Your task to perform on an android device: open app "Mercado Libre" (install if not already installed) and enter user name: "tolerating@yahoo.com" and password: "Kepler" Image 0: 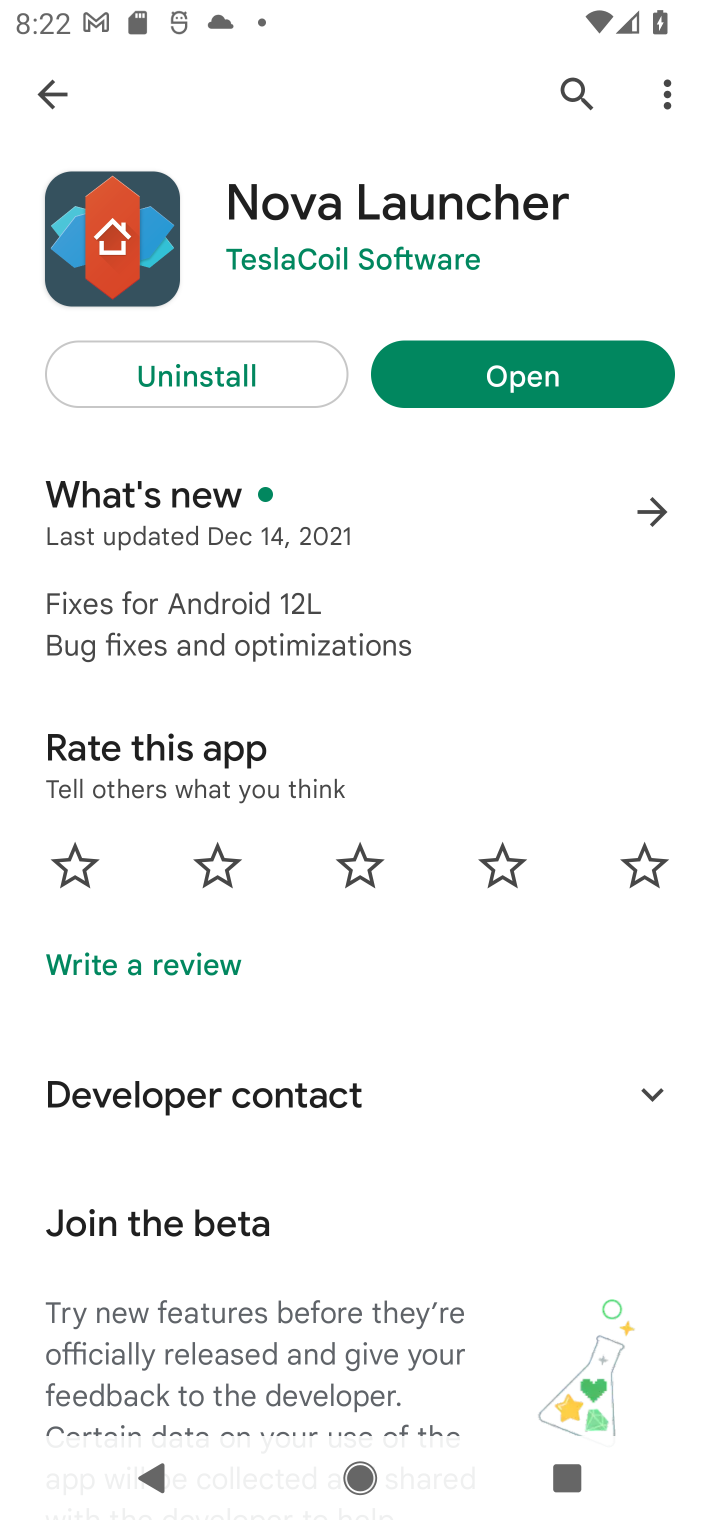
Step 0: press back button
Your task to perform on an android device: open app "Mercado Libre" (install if not already installed) and enter user name: "tolerating@yahoo.com" and password: "Kepler" Image 1: 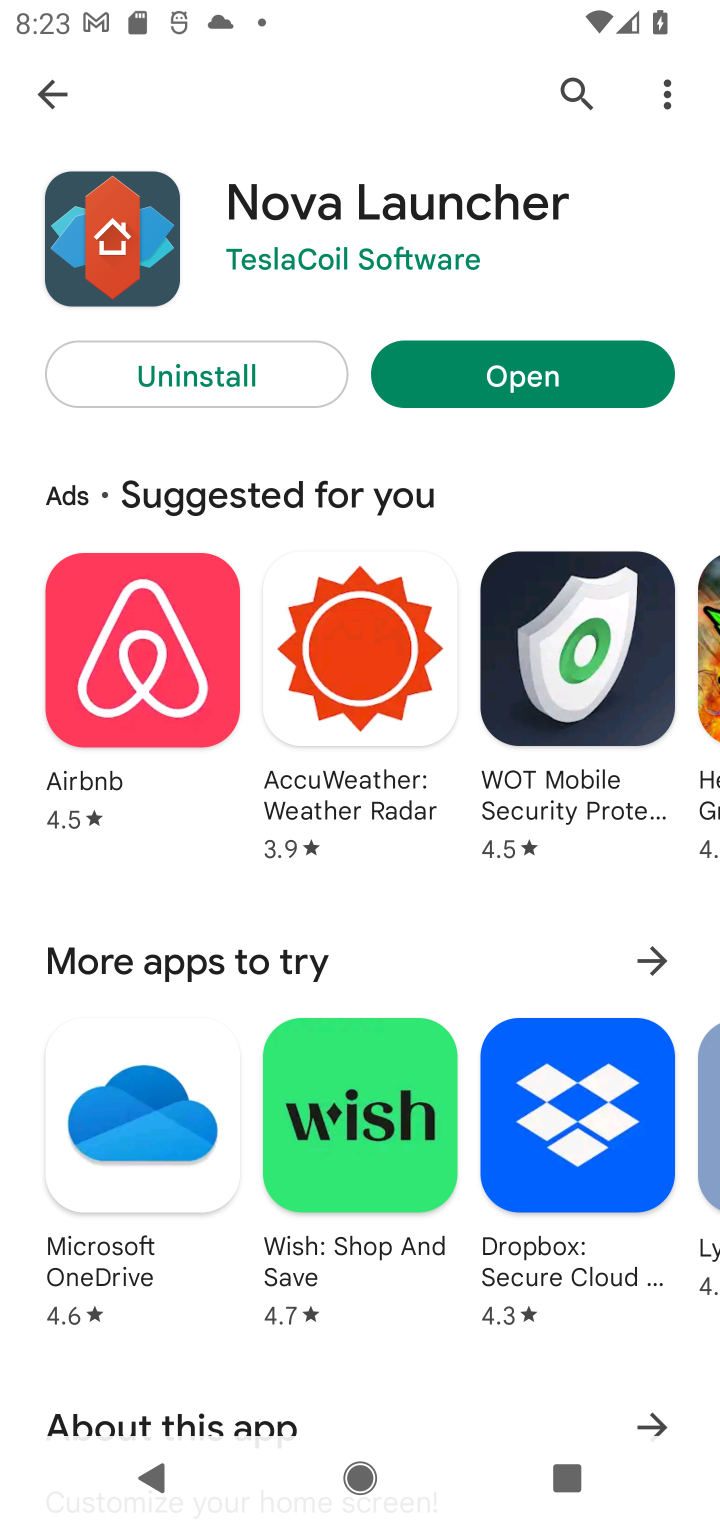
Step 1: click (574, 106)
Your task to perform on an android device: open app "Mercado Libre" (install if not already installed) and enter user name: "tolerating@yahoo.com" and password: "Kepler" Image 2: 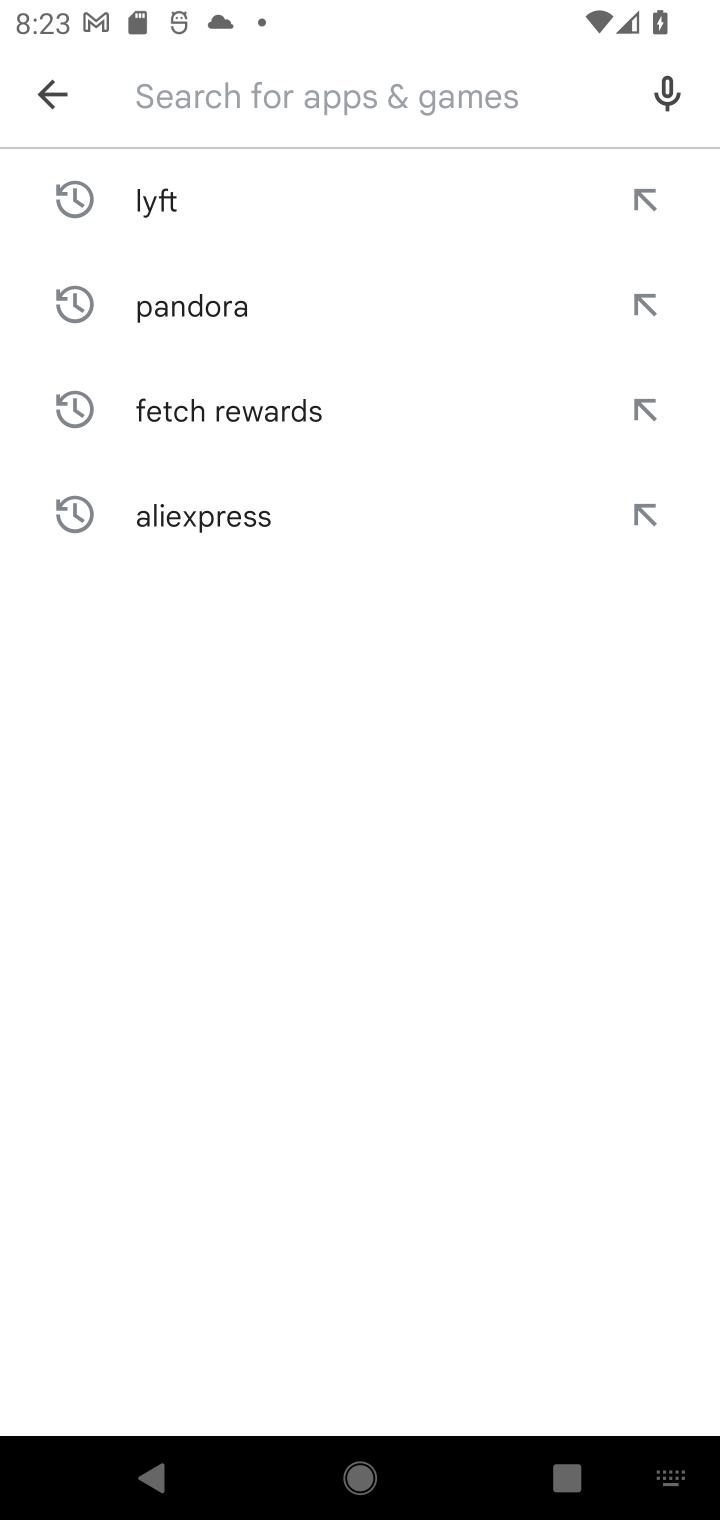
Step 2: type "mercado libre"
Your task to perform on an android device: open app "Mercado Libre" (install if not already installed) and enter user name: "tolerating@yahoo.com" and password: "Kepler" Image 3: 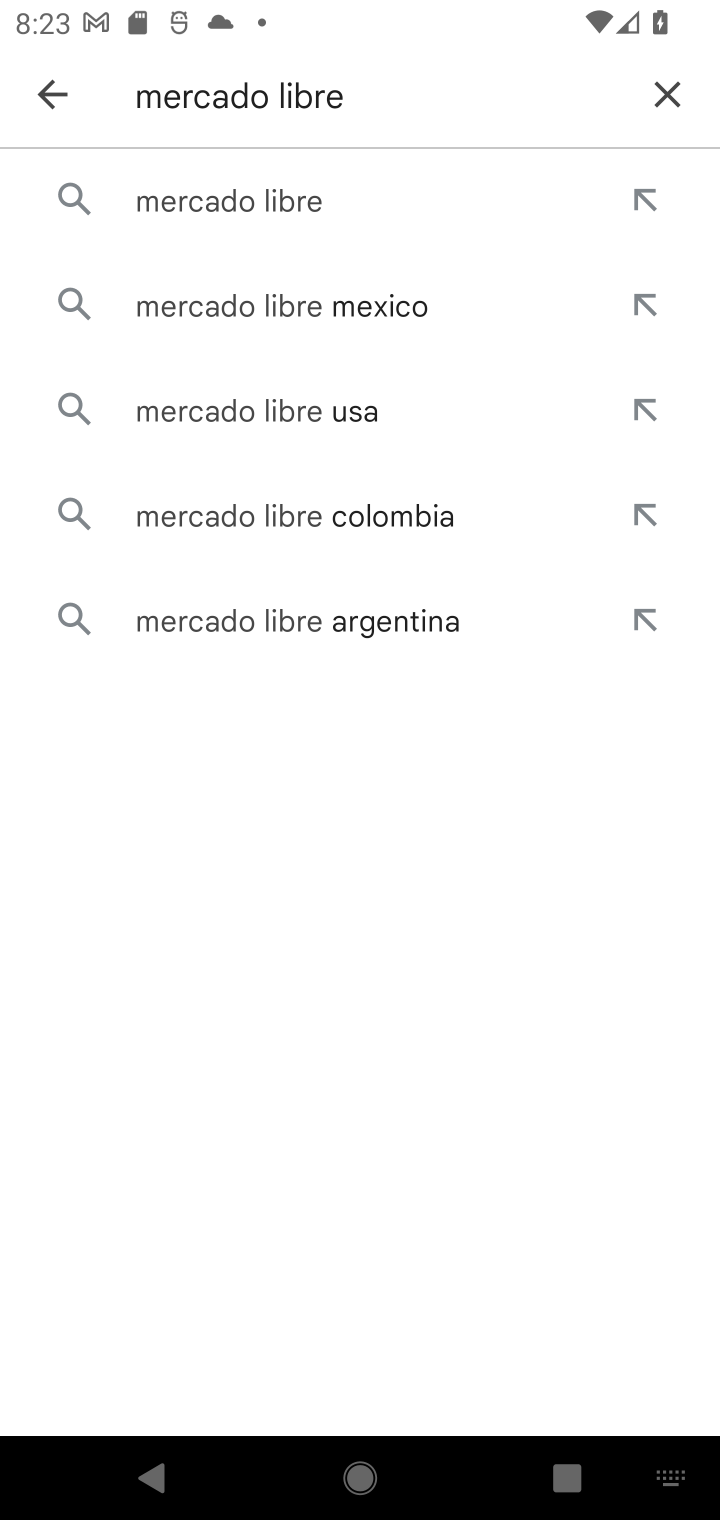
Step 3: click (180, 195)
Your task to perform on an android device: open app "Mercado Libre" (install if not already installed) and enter user name: "tolerating@yahoo.com" and password: "Kepler" Image 4: 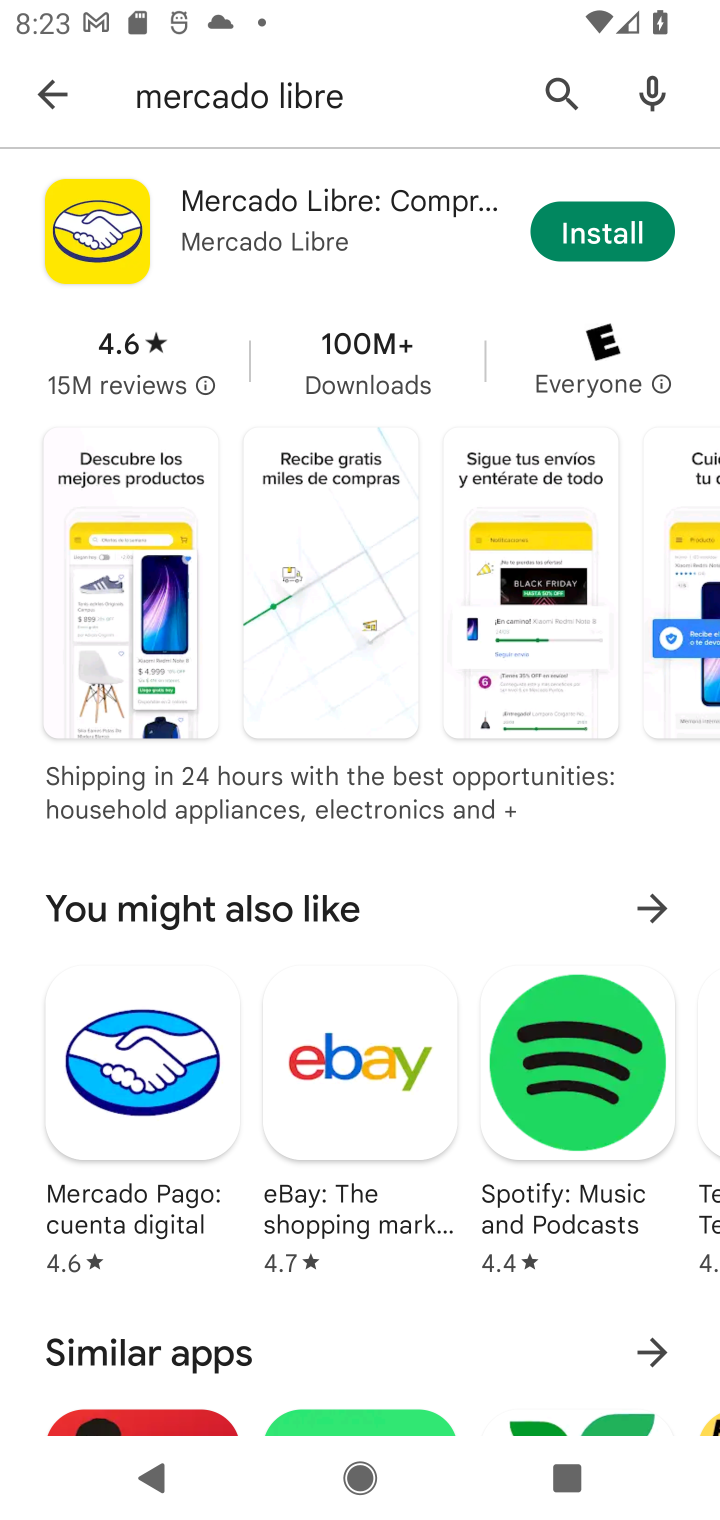
Step 4: click (609, 235)
Your task to perform on an android device: open app "Mercado Libre" (install if not already installed) and enter user name: "tolerating@yahoo.com" and password: "Kepler" Image 5: 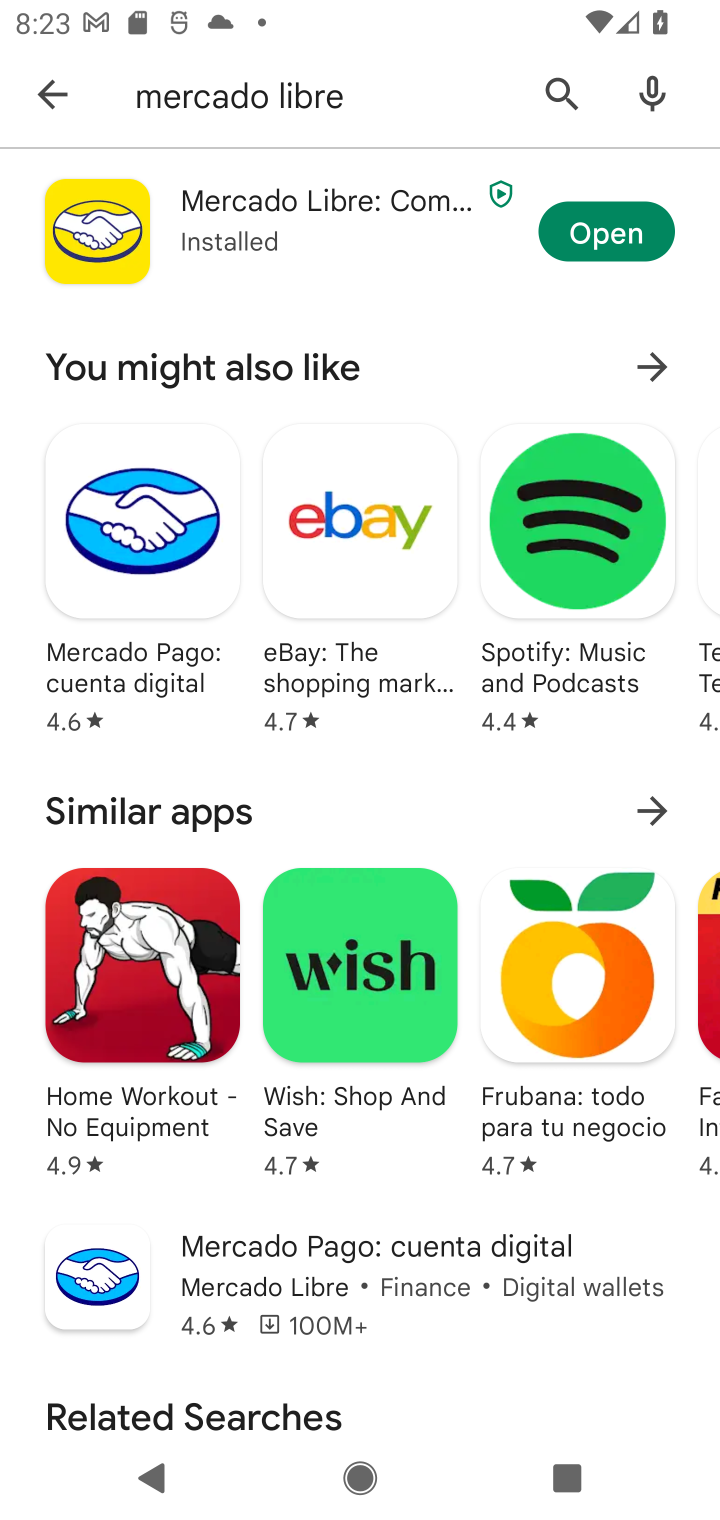
Step 5: click (594, 251)
Your task to perform on an android device: open app "Mercado Libre" (install if not already installed) and enter user name: "tolerating@yahoo.com" and password: "Kepler" Image 6: 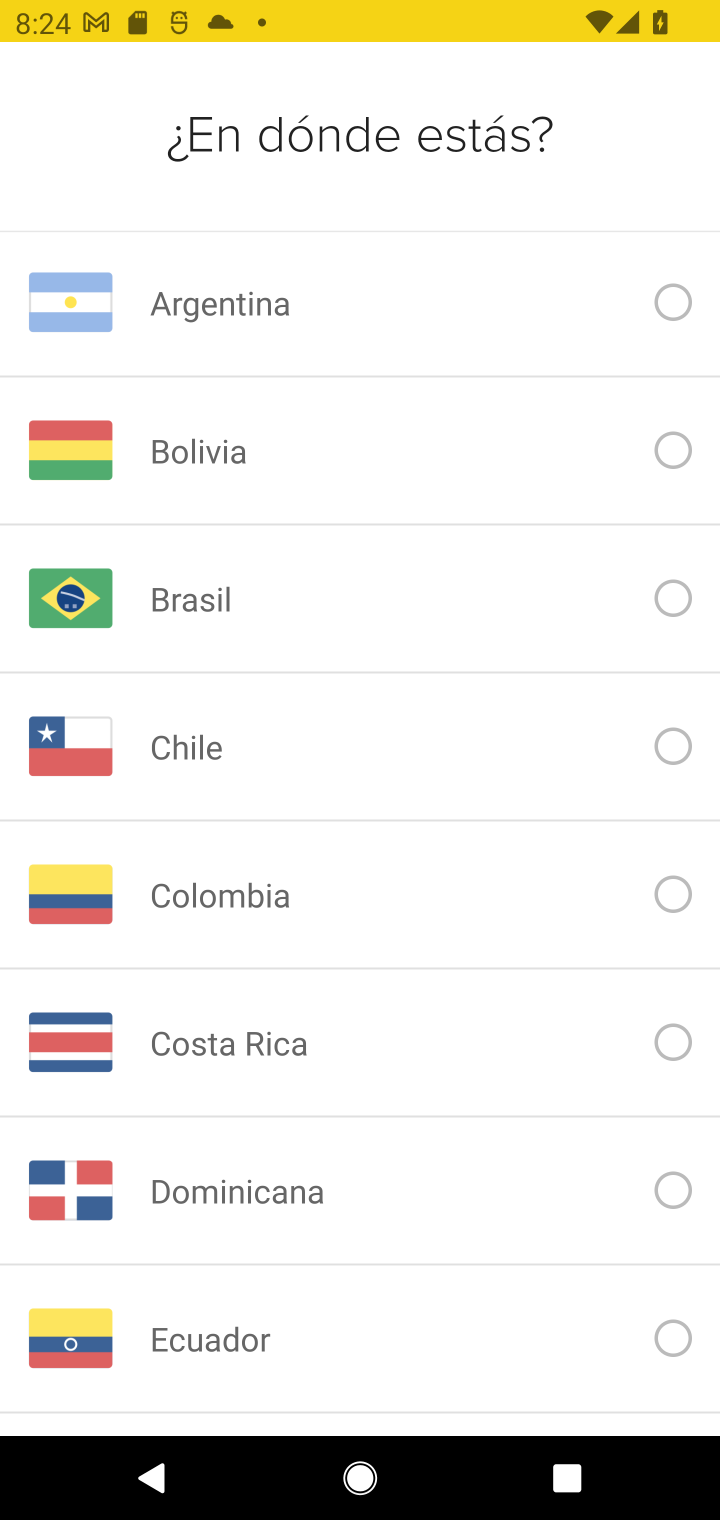
Step 6: click (531, 301)
Your task to perform on an android device: open app "Mercado Libre" (install if not already installed) and enter user name: "tolerating@yahoo.com" and password: "Kepler" Image 7: 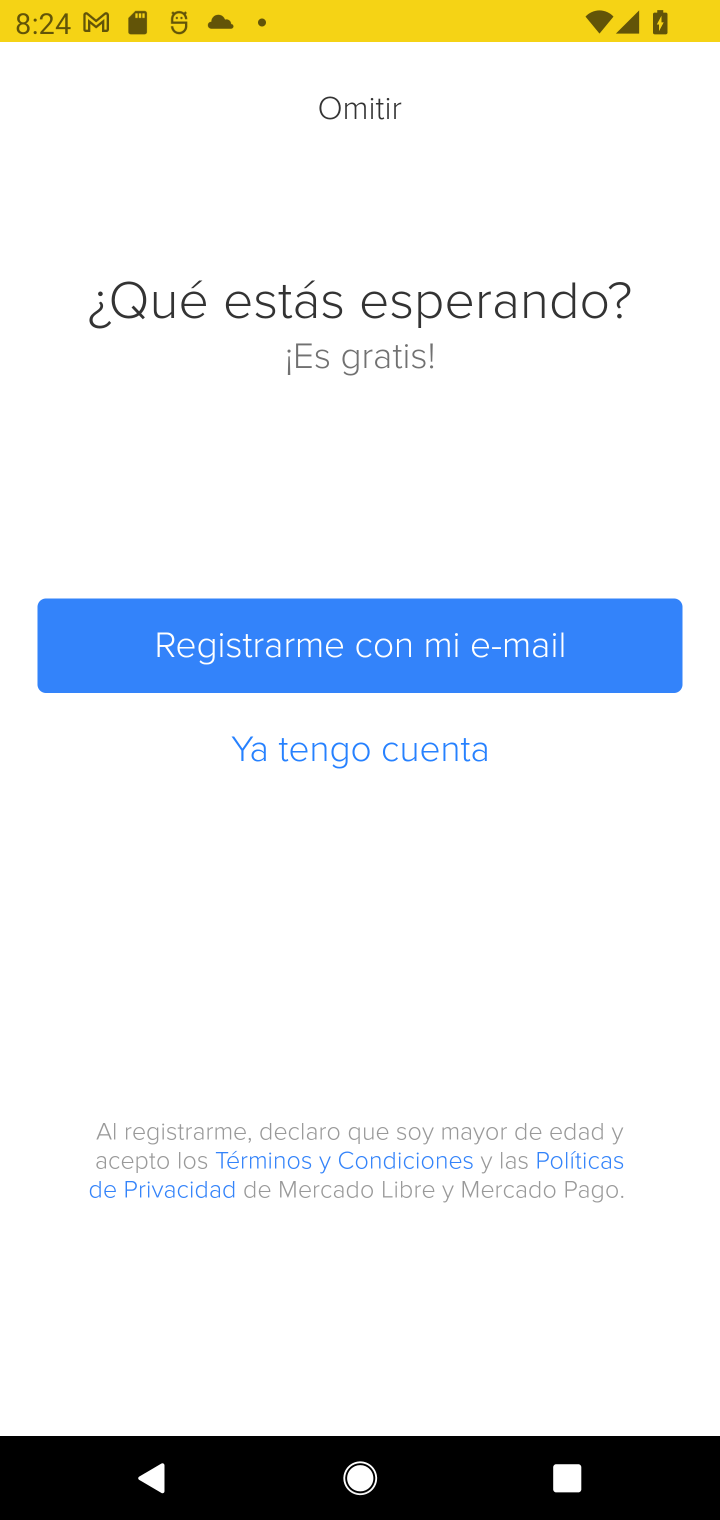
Step 7: task complete